Your task to perform on an android device: open a bookmark in the chrome app Image 0: 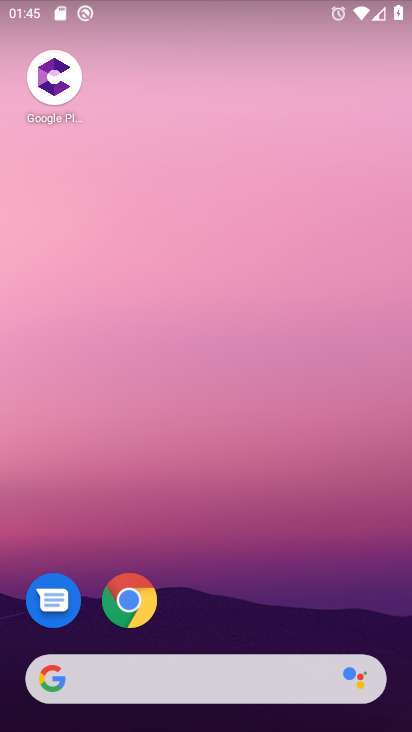
Step 0: click (145, 598)
Your task to perform on an android device: open a bookmark in the chrome app Image 1: 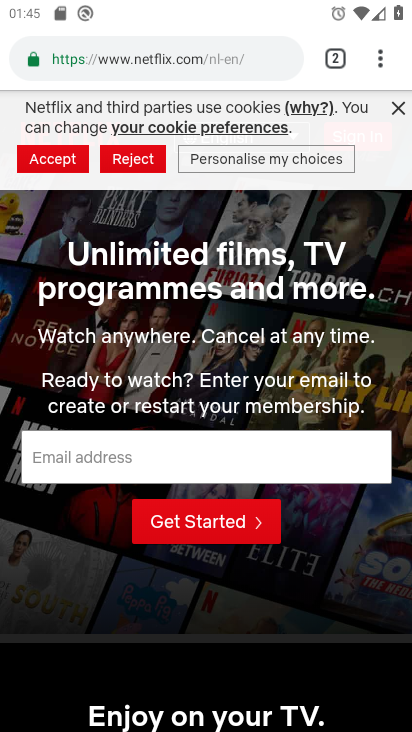
Step 1: click (383, 63)
Your task to perform on an android device: open a bookmark in the chrome app Image 2: 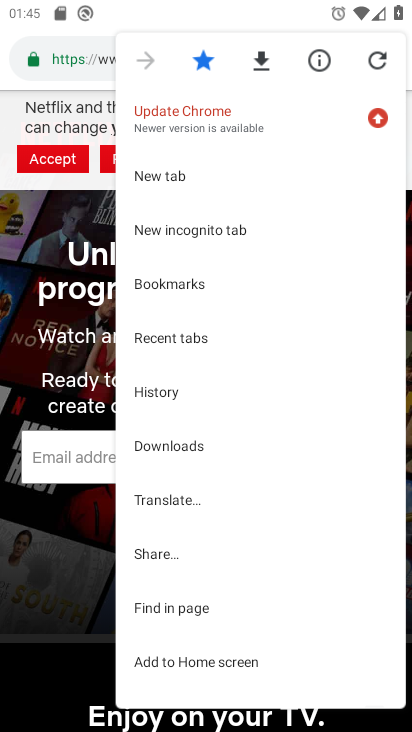
Step 2: click (195, 287)
Your task to perform on an android device: open a bookmark in the chrome app Image 3: 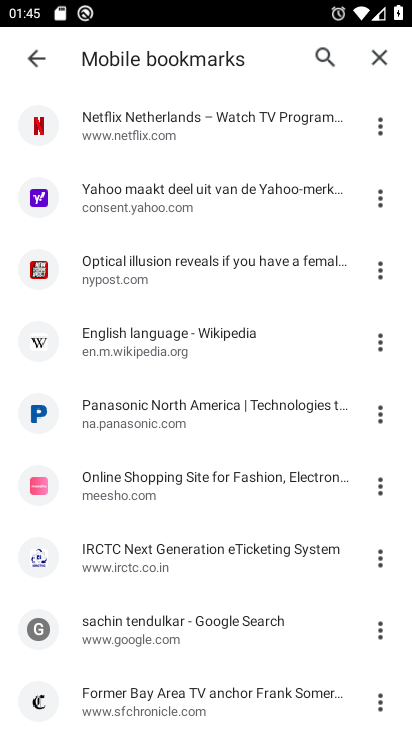
Step 3: click (178, 336)
Your task to perform on an android device: open a bookmark in the chrome app Image 4: 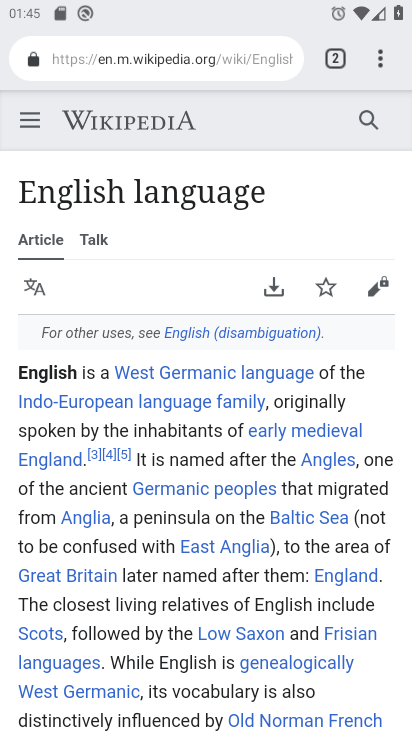
Step 4: task complete